Your task to perform on an android device: Search for "macbook" on bestbuy, select the first entry, and add it to the cart. Image 0: 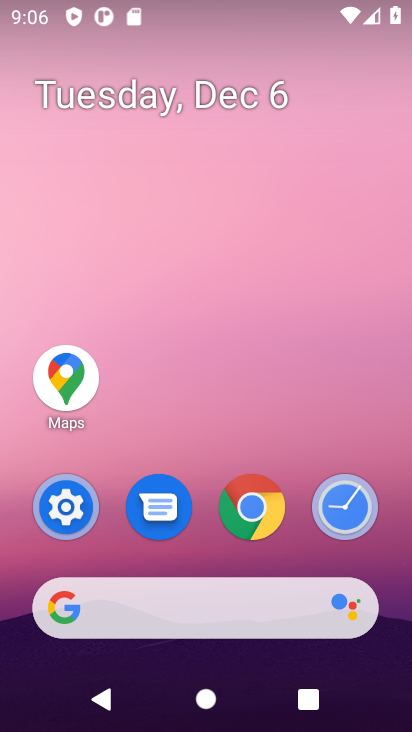
Step 0: press home button
Your task to perform on an android device: Search for "macbook" on bestbuy, select the first entry, and add it to the cart. Image 1: 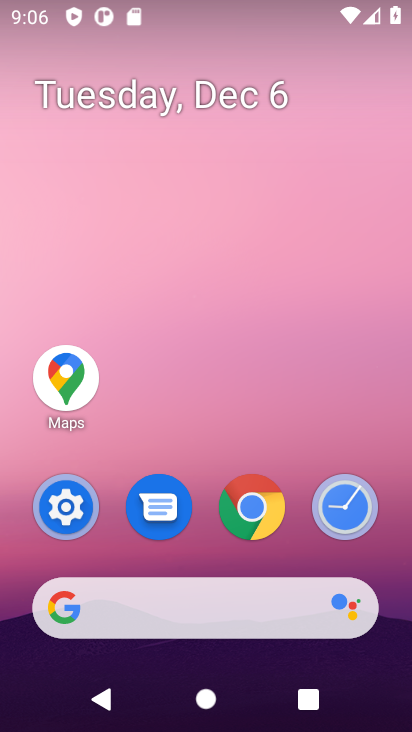
Step 1: click (206, 607)
Your task to perform on an android device: Search for "macbook" on bestbuy, select the first entry, and add it to the cart. Image 2: 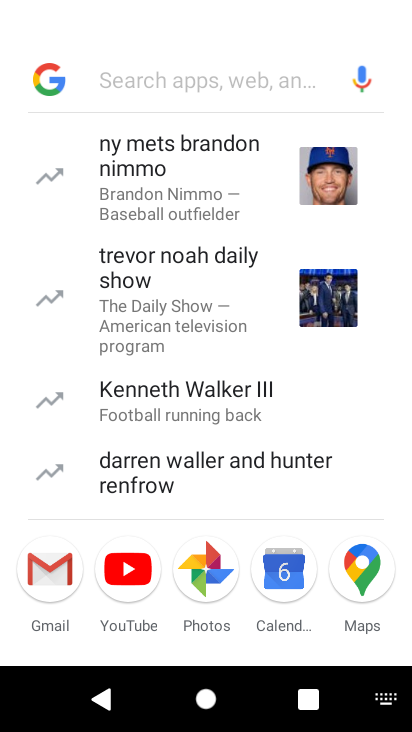
Step 2: type "bestbuy"
Your task to perform on an android device: Search for "macbook" on bestbuy, select the first entry, and add it to the cart. Image 3: 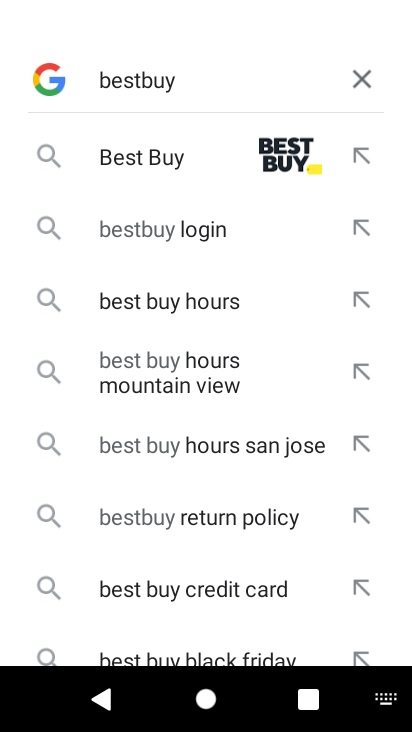
Step 3: press enter
Your task to perform on an android device: Search for "macbook" on bestbuy, select the first entry, and add it to the cart. Image 4: 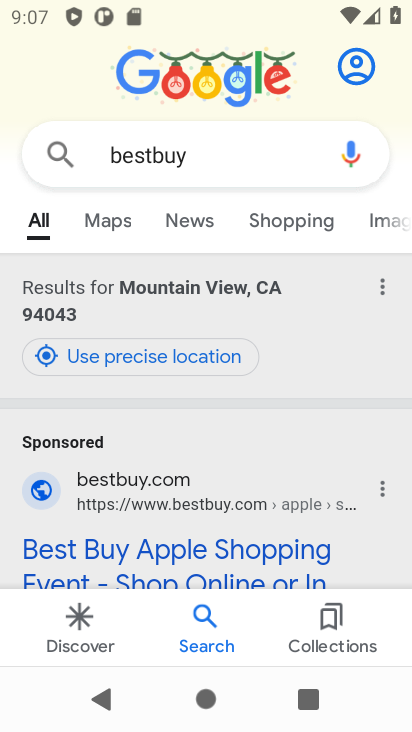
Step 4: click (210, 564)
Your task to perform on an android device: Search for "macbook" on bestbuy, select the first entry, and add it to the cart. Image 5: 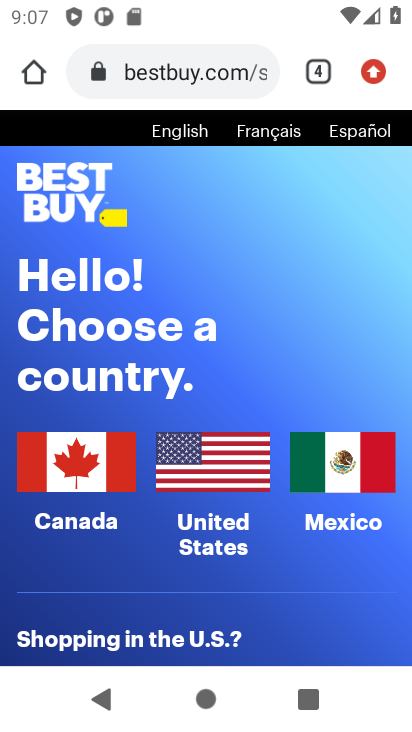
Step 5: click (78, 470)
Your task to perform on an android device: Search for "macbook" on bestbuy, select the first entry, and add it to the cart. Image 6: 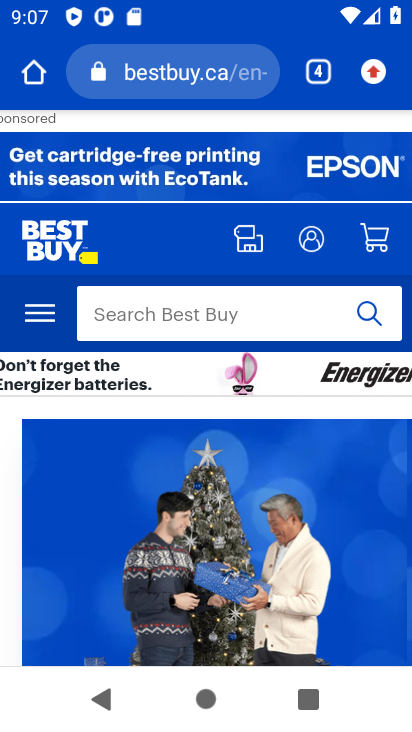
Step 6: click (249, 325)
Your task to perform on an android device: Search for "macbook" on bestbuy, select the first entry, and add it to the cart. Image 7: 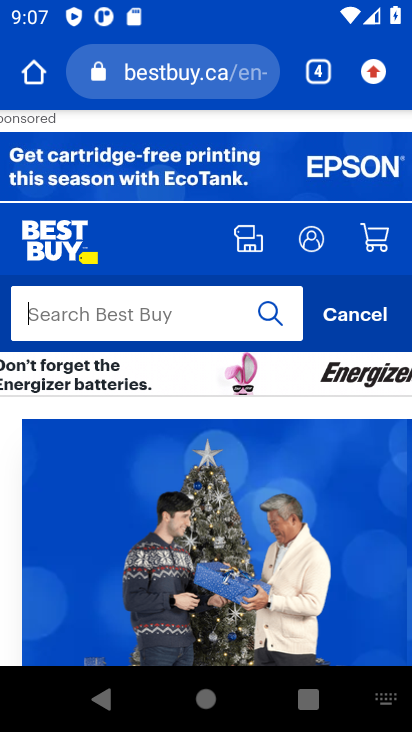
Step 7: type "macbook"
Your task to perform on an android device: Search for "macbook" on bestbuy, select the first entry, and add it to the cart. Image 8: 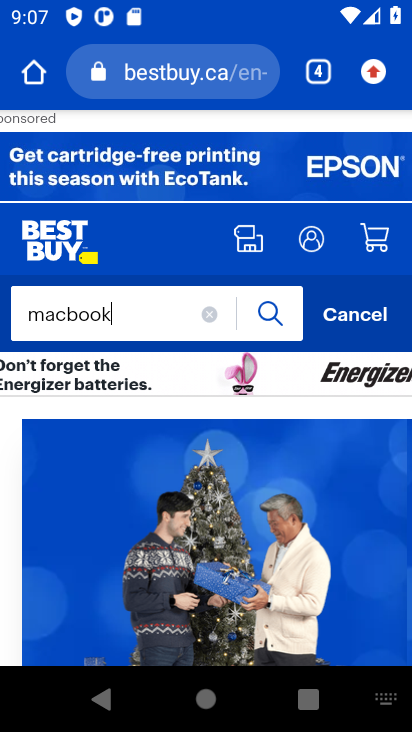
Step 8: press enter
Your task to perform on an android device: Search for "macbook" on bestbuy, select the first entry, and add it to the cart. Image 9: 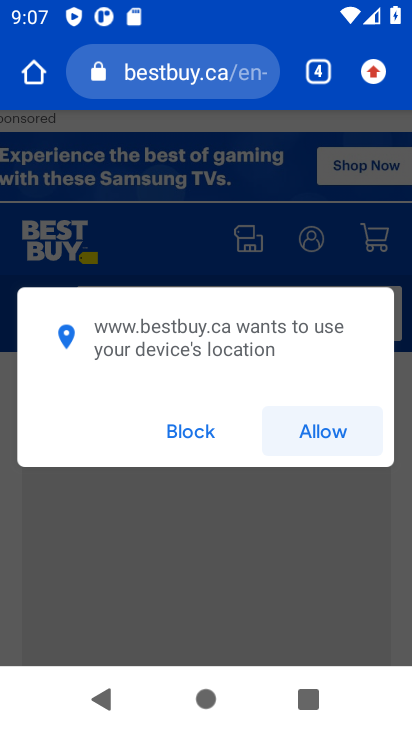
Step 9: click (176, 432)
Your task to perform on an android device: Search for "macbook" on bestbuy, select the first entry, and add it to the cart. Image 10: 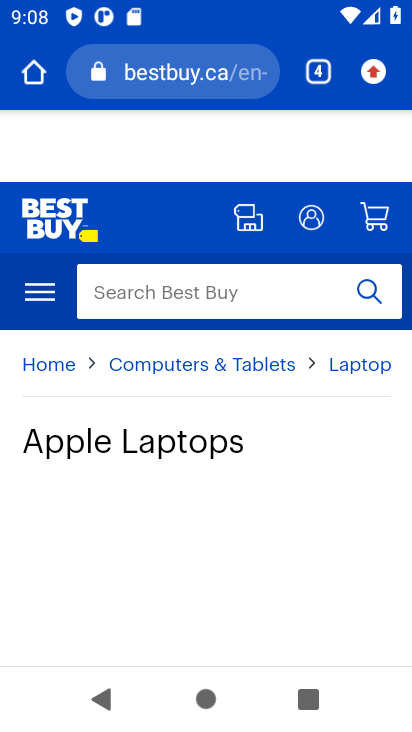
Step 10: drag from (320, 538) to (304, 340)
Your task to perform on an android device: Search for "macbook" on bestbuy, select the first entry, and add it to the cart. Image 11: 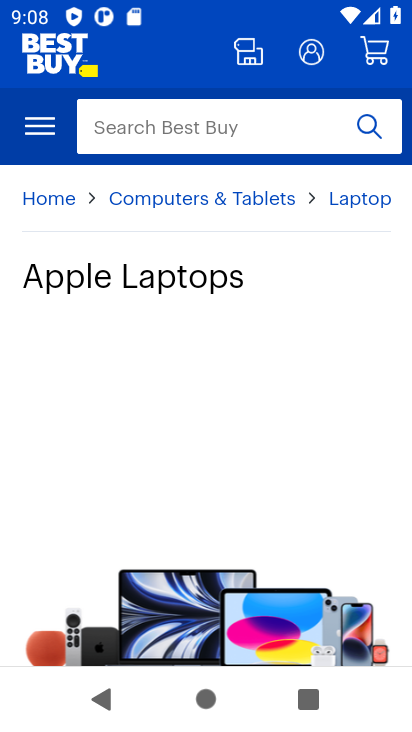
Step 11: drag from (241, 583) to (277, 272)
Your task to perform on an android device: Search for "macbook" on bestbuy, select the first entry, and add it to the cart. Image 12: 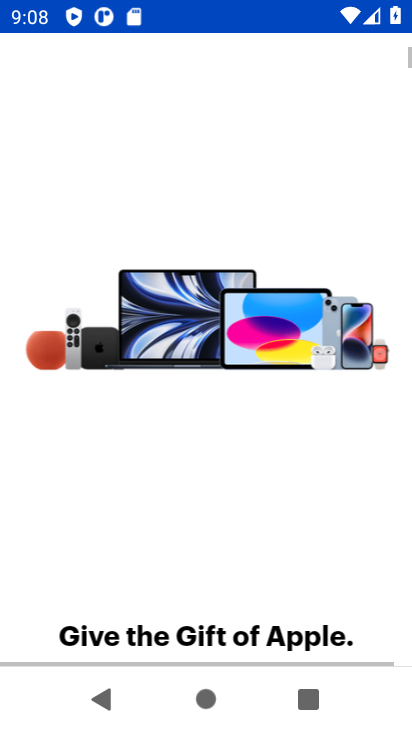
Step 12: drag from (248, 552) to (277, 252)
Your task to perform on an android device: Search for "macbook" on bestbuy, select the first entry, and add it to the cart. Image 13: 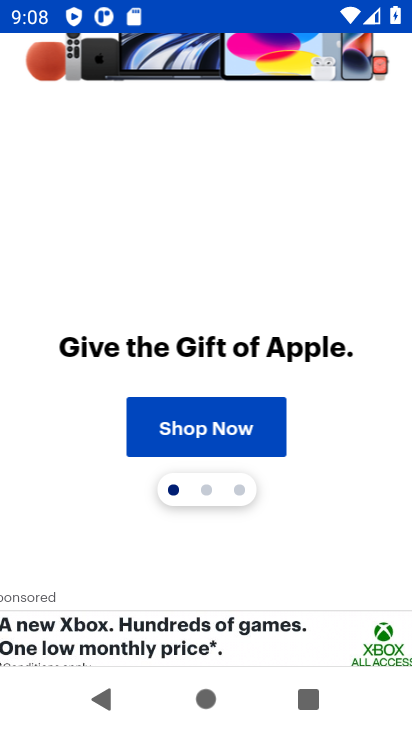
Step 13: drag from (259, 581) to (275, 237)
Your task to perform on an android device: Search for "macbook" on bestbuy, select the first entry, and add it to the cart. Image 14: 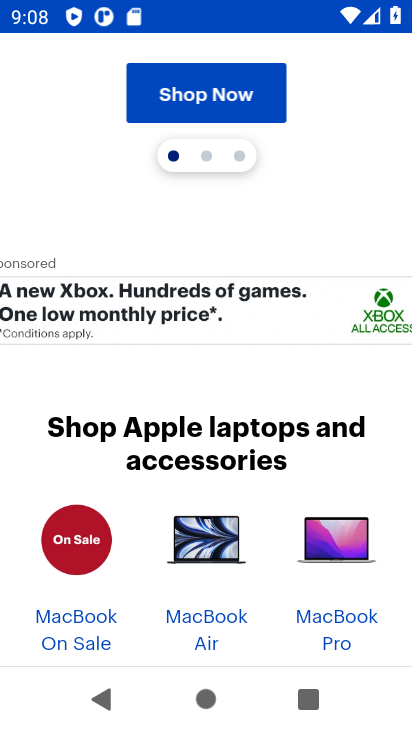
Step 14: drag from (266, 598) to (285, 266)
Your task to perform on an android device: Search for "macbook" on bestbuy, select the first entry, and add it to the cart. Image 15: 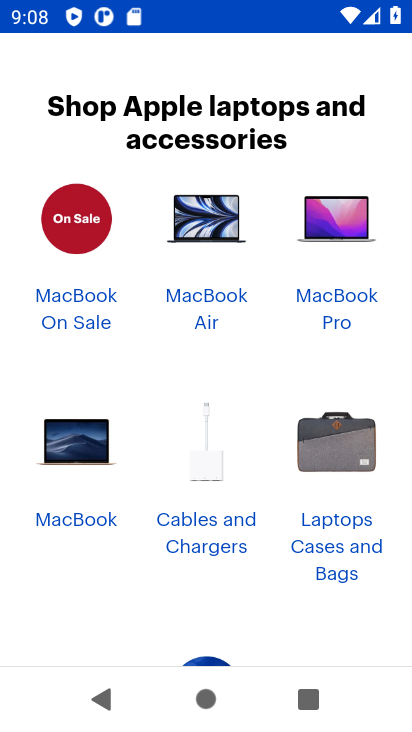
Step 15: click (320, 298)
Your task to perform on an android device: Search for "macbook" on bestbuy, select the first entry, and add it to the cart. Image 16: 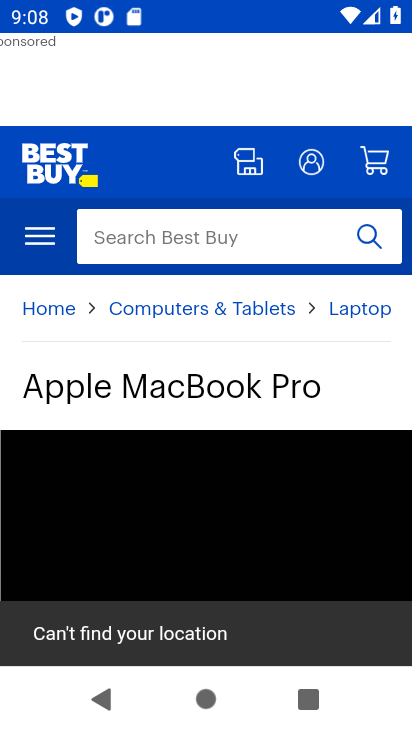
Step 16: drag from (234, 540) to (263, 302)
Your task to perform on an android device: Search for "macbook" on bestbuy, select the first entry, and add it to the cart. Image 17: 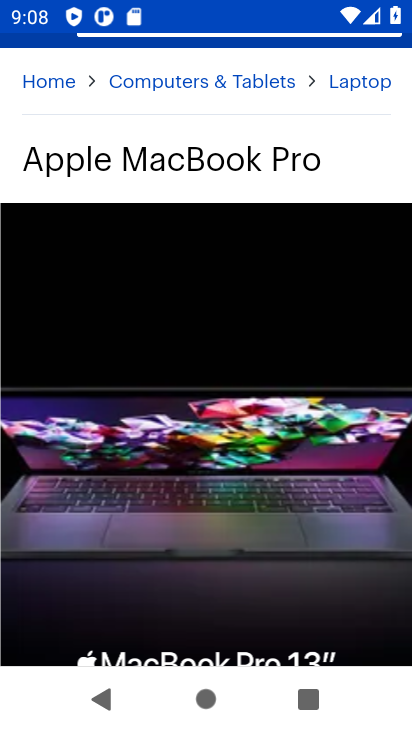
Step 17: drag from (243, 426) to (277, 147)
Your task to perform on an android device: Search for "macbook" on bestbuy, select the first entry, and add it to the cart. Image 18: 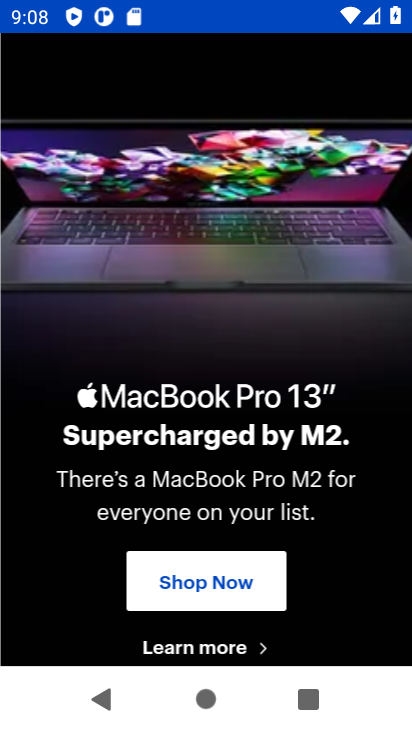
Step 18: click (207, 586)
Your task to perform on an android device: Search for "macbook" on bestbuy, select the first entry, and add it to the cart. Image 19: 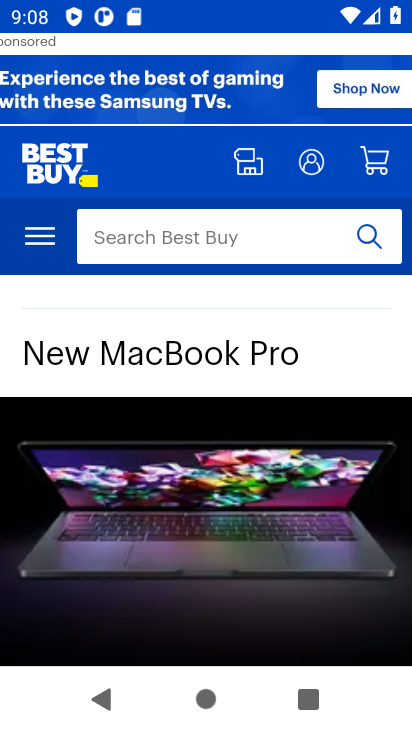
Step 19: drag from (239, 540) to (271, 307)
Your task to perform on an android device: Search for "macbook" on bestbuy, select the first entry, and add it to the cart. Image 20: 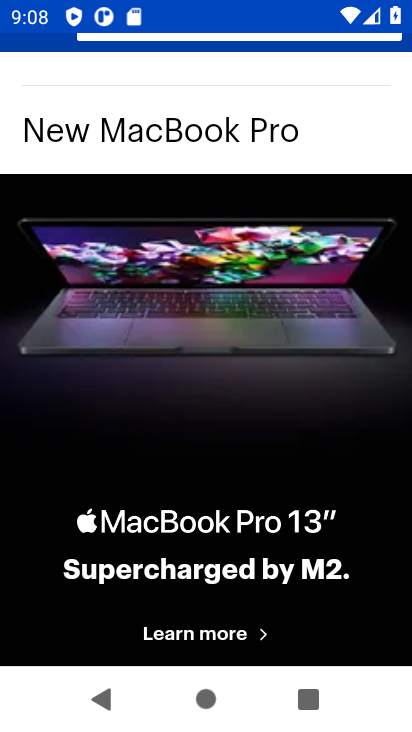
Step 20: drag from (198, 543) to (223, 184)
Your task to perform on an android device: Search for "macbook" on bestbuy, select the first entry, and add it to the cart. Image 21: 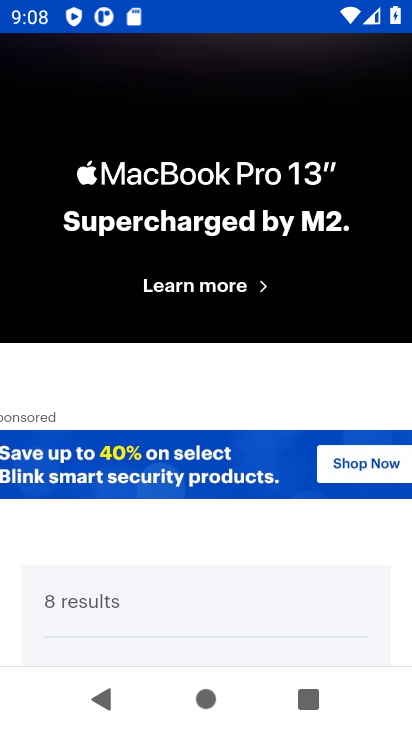
Step 21: drag from (194, 564) to (250, 220)
Your task to perform on an android device: Search for "macbook" on bestbuy, select the first entry, and add it to the cart. Image 22: 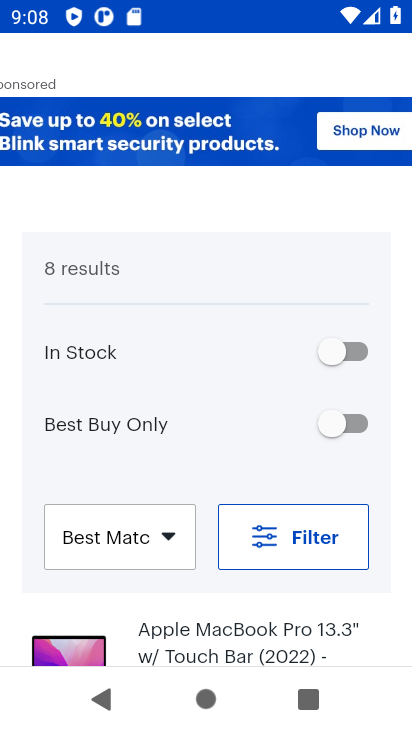
Step 22: drag from (194, 611) to (238, 227)
Your task to perform on an android device: Search for "macbook" on bestbuy, select the first entry, and add it to the cart. Image 23: 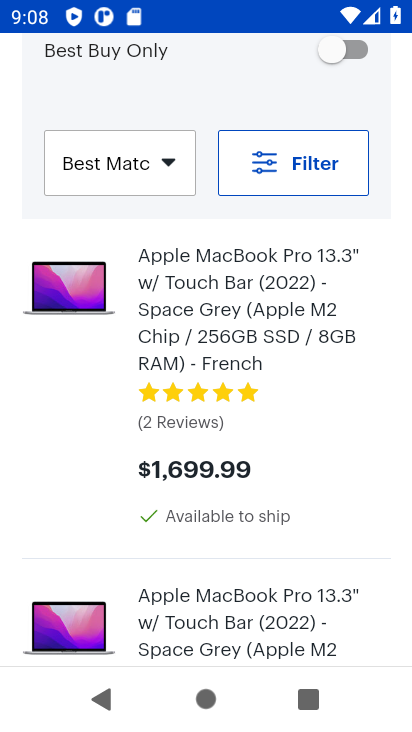
Step 23: drag from (237, 602) to (275, 336)
Your task to perform on an android device: Search for "macbook" on bestbuy, select the first entry, and add it to the cart. Image 24: 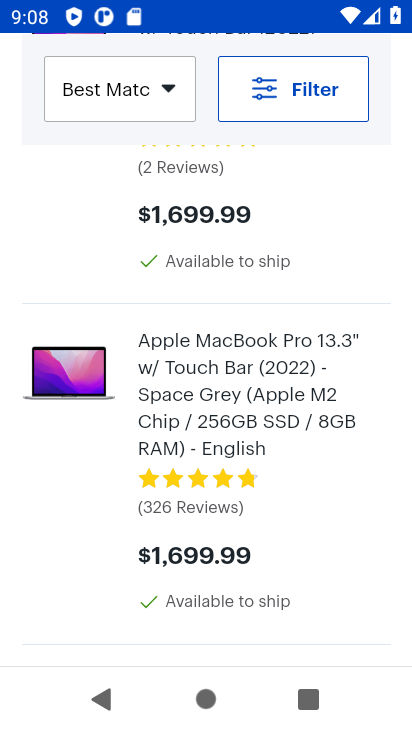
Step 24: drag from (278, 187) to (259, 350)
Your task to perform on an android device: Search for "macbook" on bestbuy, select the first entry, and add it to the cart. Image 25: 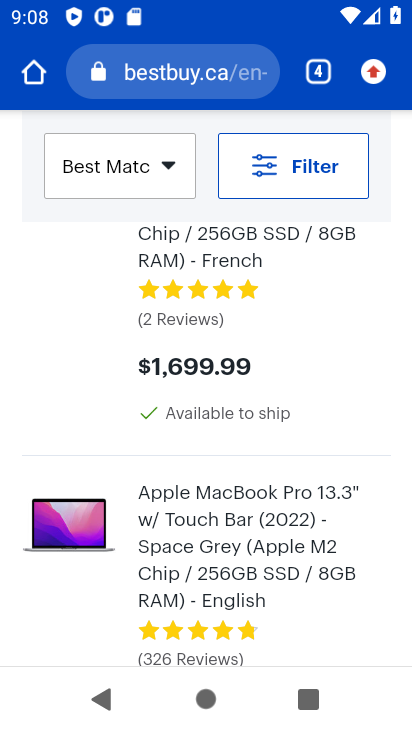
Step 25: click (226, 263)
Your task to perform on an android device: Search for "macbook" on bestbuy, select the first entry, and add it to the cart. Image 26: 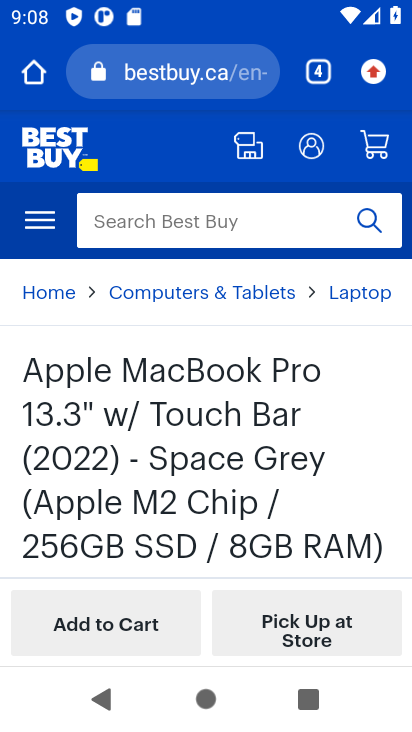
Step 26: drag from (197, 527) to (223, 345)
Your task to perform on an android device: Search for "macbook" on bestbuy, select the first entry, and add it to the cart. Image 27: 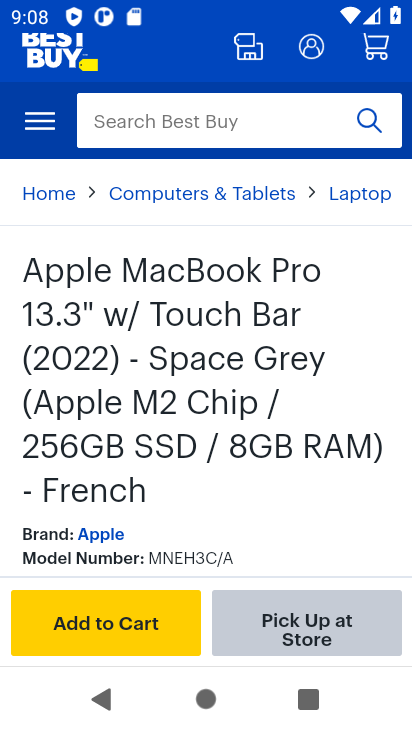
Step 27: click (120, 637)
Your task to perform on an android device: Search for "macbook" on bestbuy, select the first entry, and add it to the cart. Image 28: 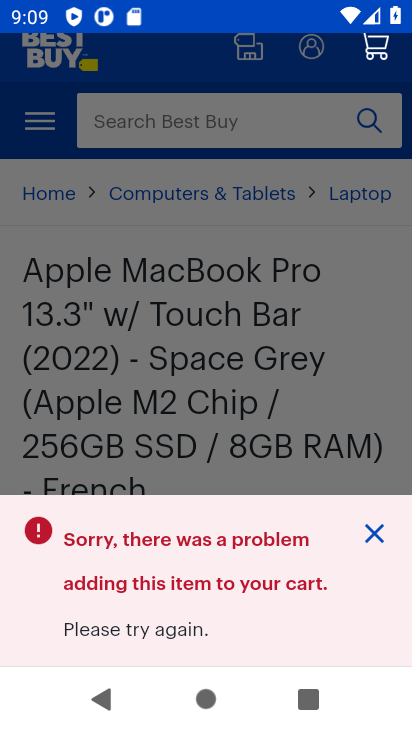
Step 28: task complete